Your task to perform on an android device: Turn on the flashlight Image 0: 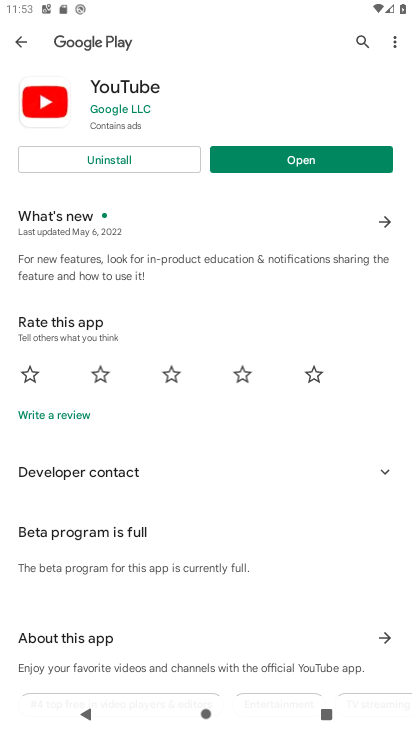
Step 0: press home button
Your task to perform on an android device: Turn on the flashlight Image 1: 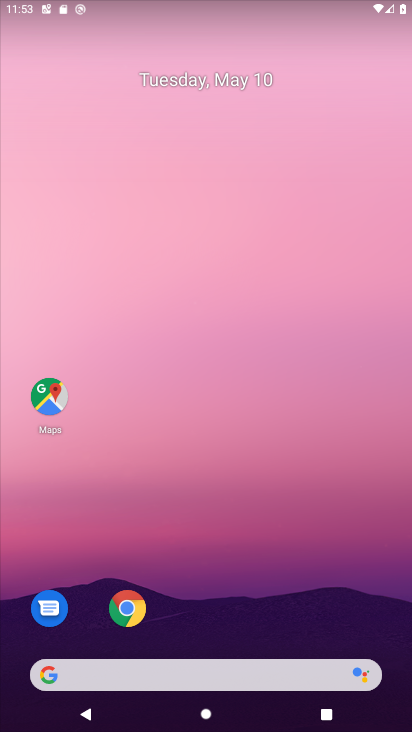
Step 1: task complete